Your task to perform on an android device: Open the phone app and click the voicemail tab. Image 0: 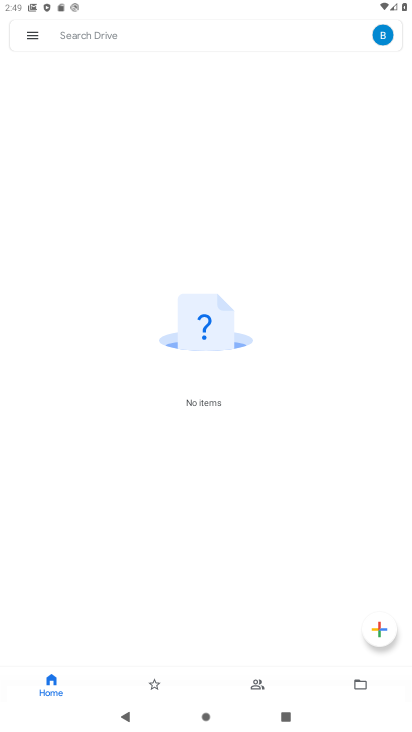
Step 0: press home button
Your task to perform on an android device: Open the phone app and click the voicemail tab. Image 1: 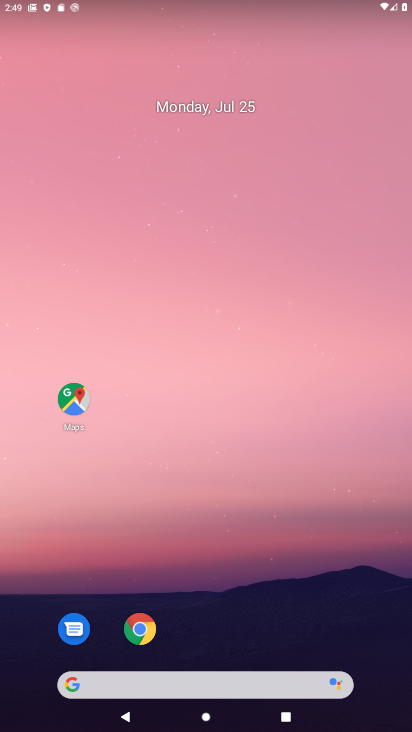
Step 1: drag from (323, 623) to (215, 120)
Your task to perform on an android device: Open the phone app and click the voicemail tab. Image 2: 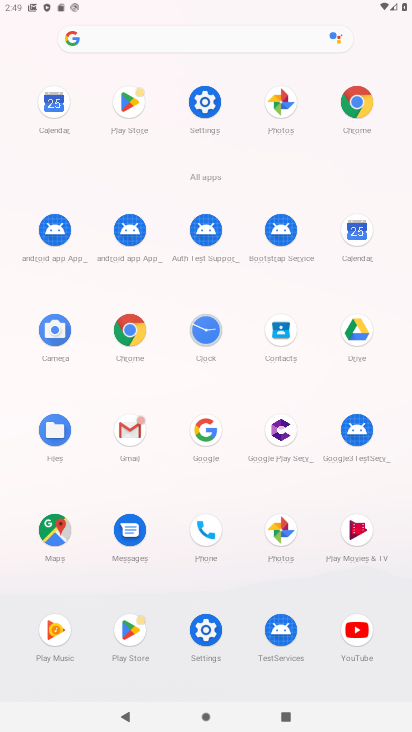
Step 2: click (201, 533)
Your task to perform on an android device: Open the phone app and click the voicemail tab. Image 3: 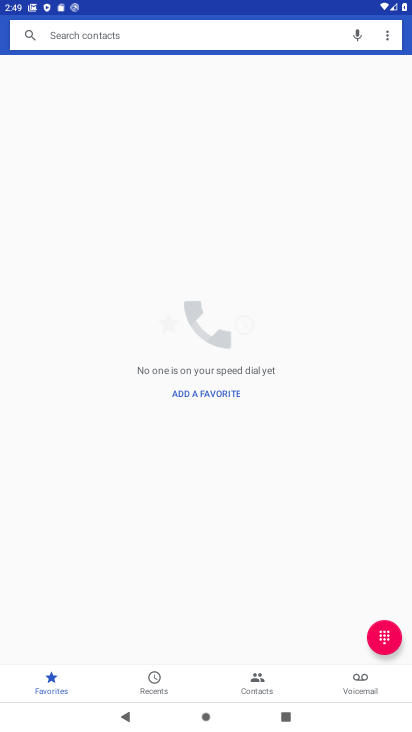
Step 3: click (363, 684)
Your task to perform on an android device: Open the phone app and click the voicemail tab. Image 4: 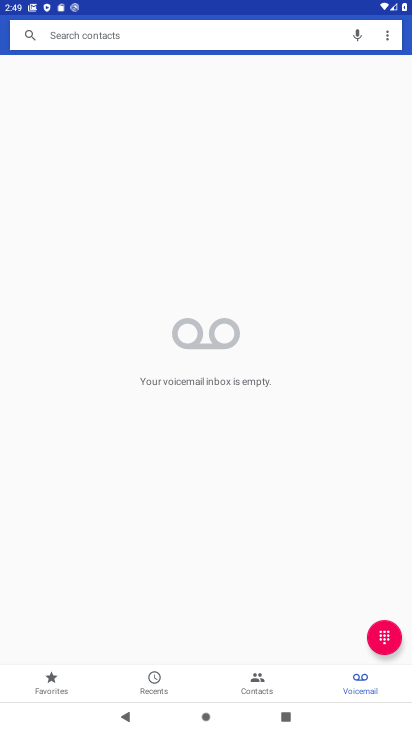
Step 4: task complete